Your task to perform on an android device: Open sound settings Image 0: 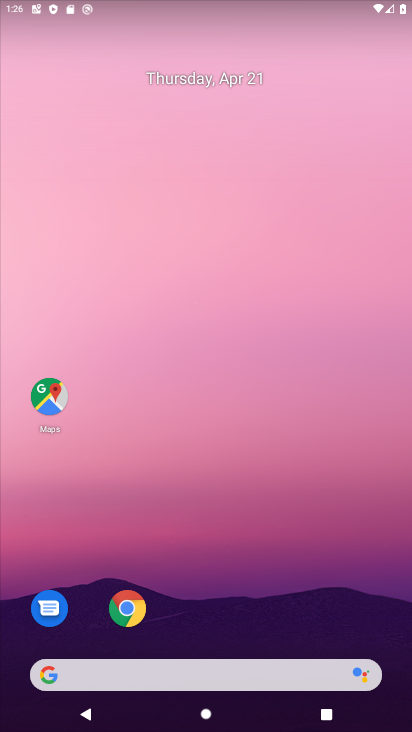
Step 0: drag from (271, 529) to (299, 119)
Your task to perform on an android device: Open sound settings Image 1: 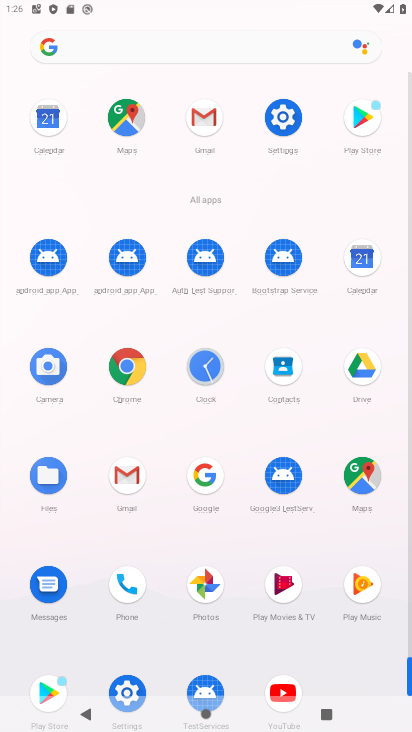
Step 1: click (299, 107)
Your task to perform on an android device: Open sound settings Image 2: 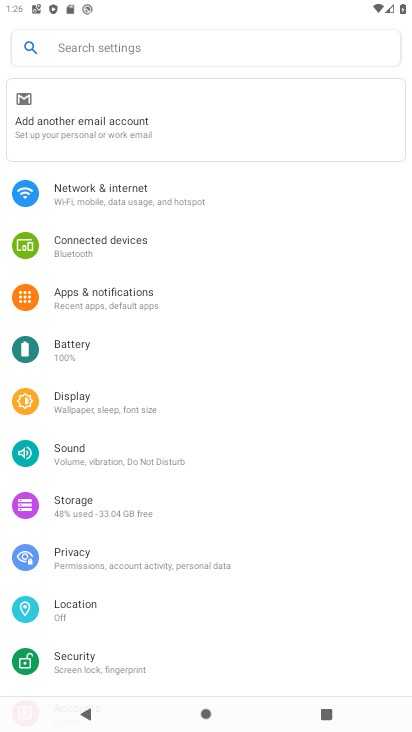
Step 2: click (106, 444)
Your task to perform on an android device: Open sound settings Image 3: 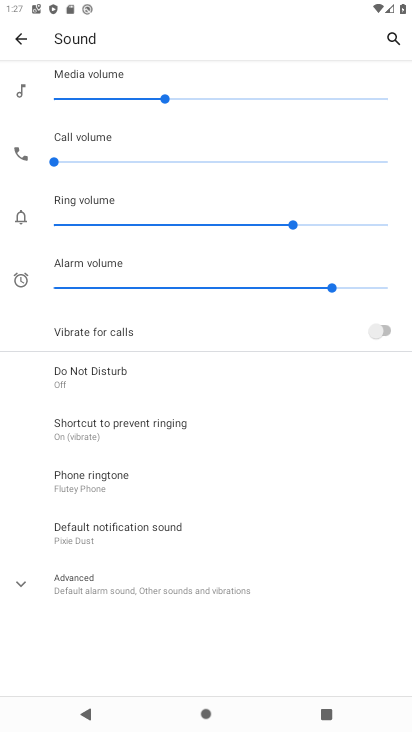
Step 3: task complete